Your task to perform on an android device: Is it going to rain tomorrow? Image 0: 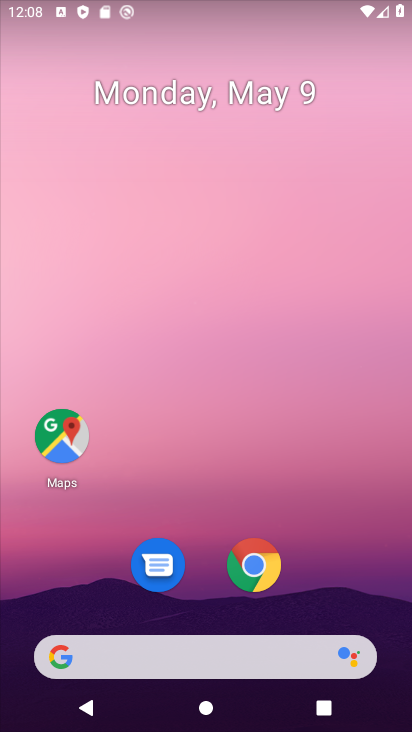
Step 0: drag from (276, 586) to (265, 198)
Your task to perform on an android device: Is it going to rain tomorrow? Image 1: 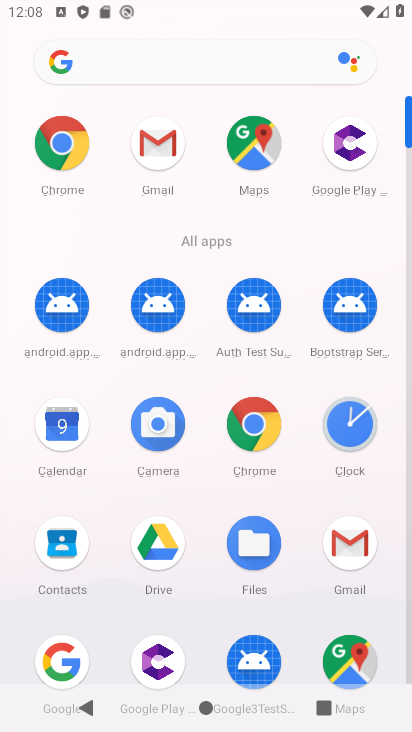
Step 1: drag from (238, 538) to (207, 279)
Your task to perform on an android device: Is it going to rain tomorrow? Image 2: 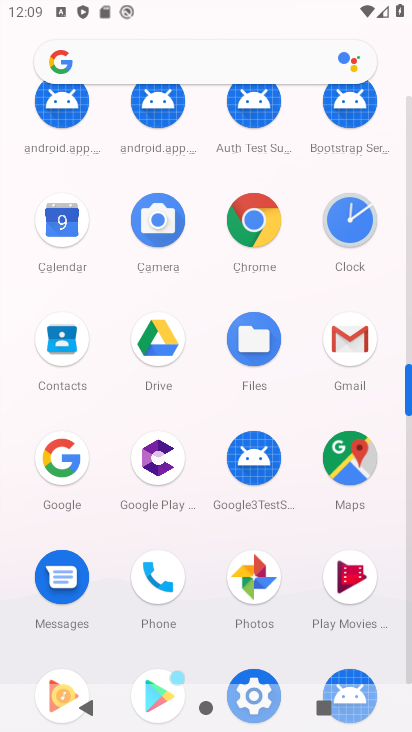
Step 2: drag from (218, 498) to (211, 358)
Your task to perform on an android device: Is it going to rain tomorrow? Image 3: 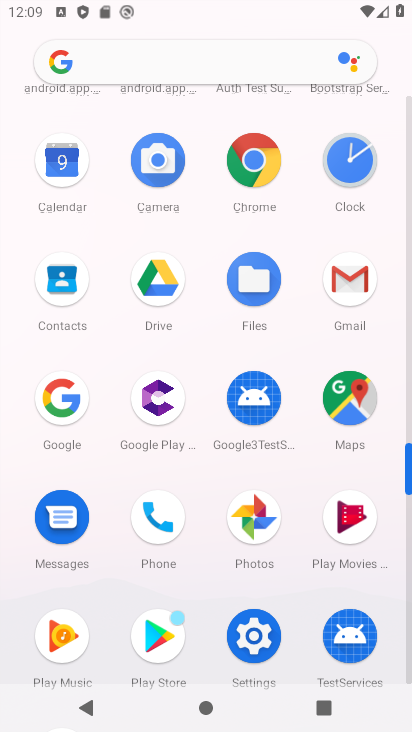
Step 3: click (50, 405)
Your task to perform on an android device: Is it going to rain tomorrow? Image 4: 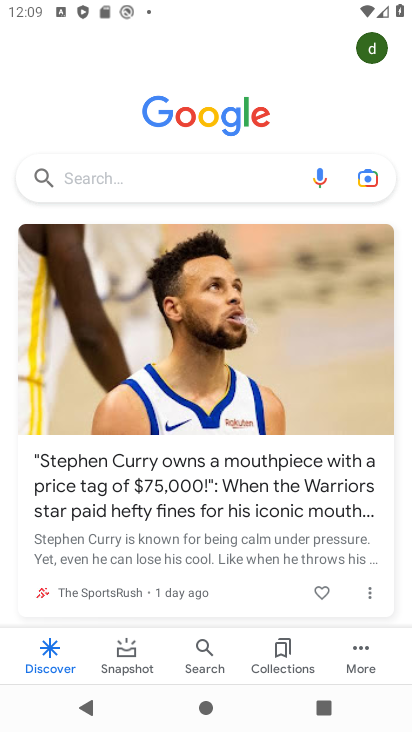
Step 4: click (165, 192)
Your task to perform on an android device: Is it going to rain tomorrow? Image 5: 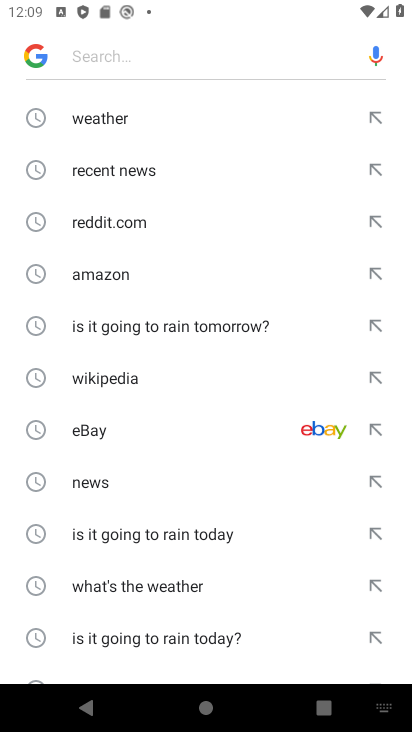
Step 5: click (199, 105)
Your task to perform on an android device: Is it going to rain tomorrow? Image 6: 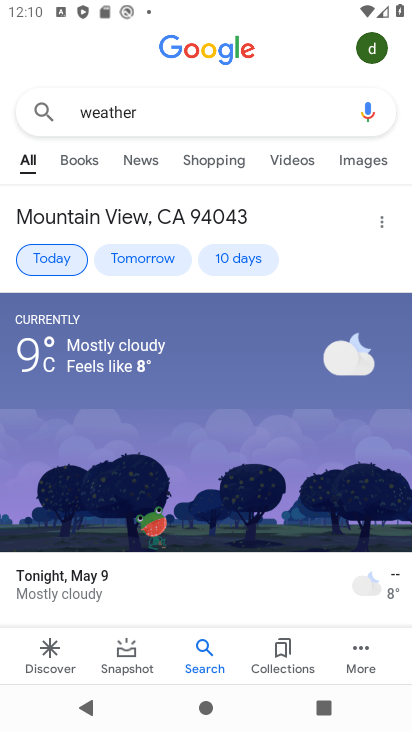
Step 6: click (171, 267)
Your task to perform on an android device: Is it going to rain tomorrow? Image 7: 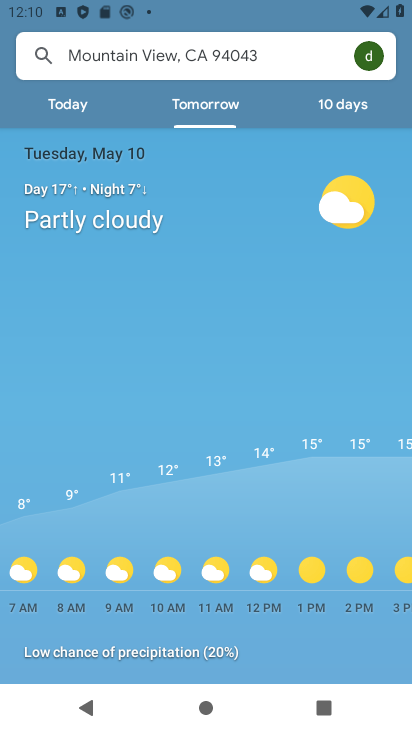
Step 7: task complete